Your task to perform on an android device: install app "Pinterest" Image 0: 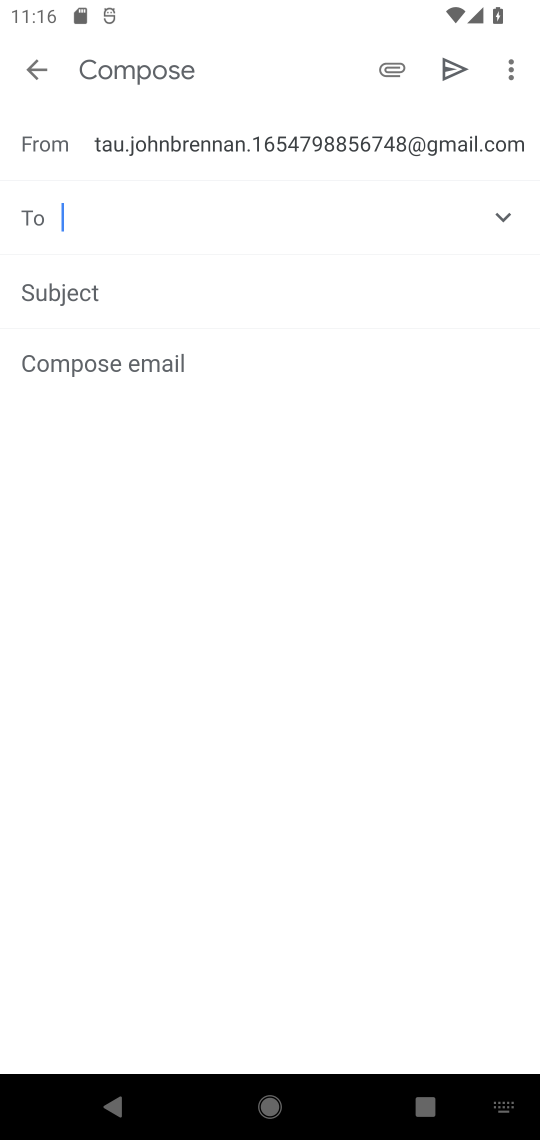
Step 0: press home button
Your task to perform on an android device: install app "Pinterest" Image 1: 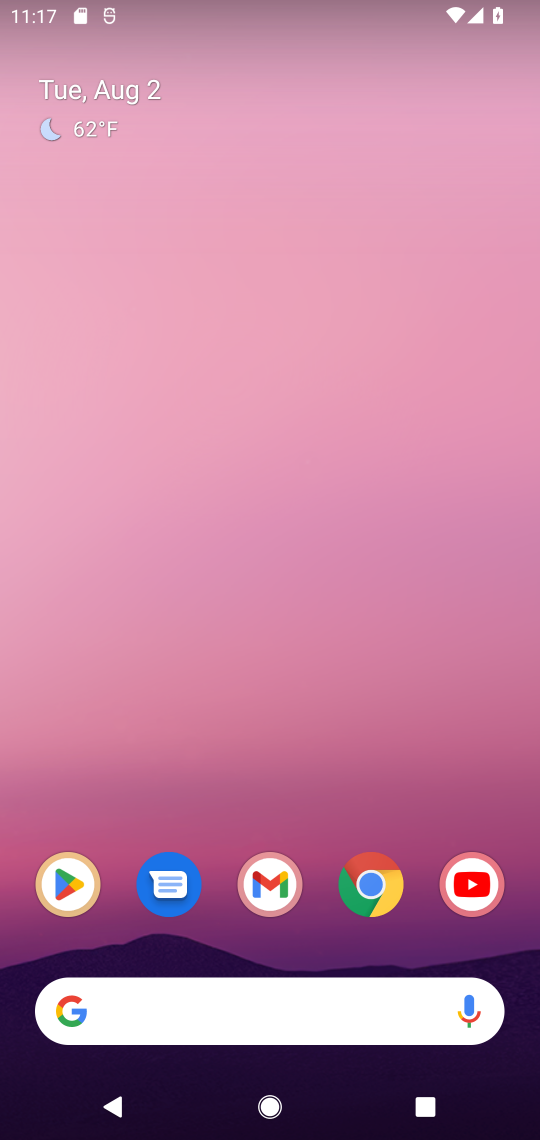
Step 1: click (60, 895)
Your task to perform on an android device: install app "Pinterest" Image 2: 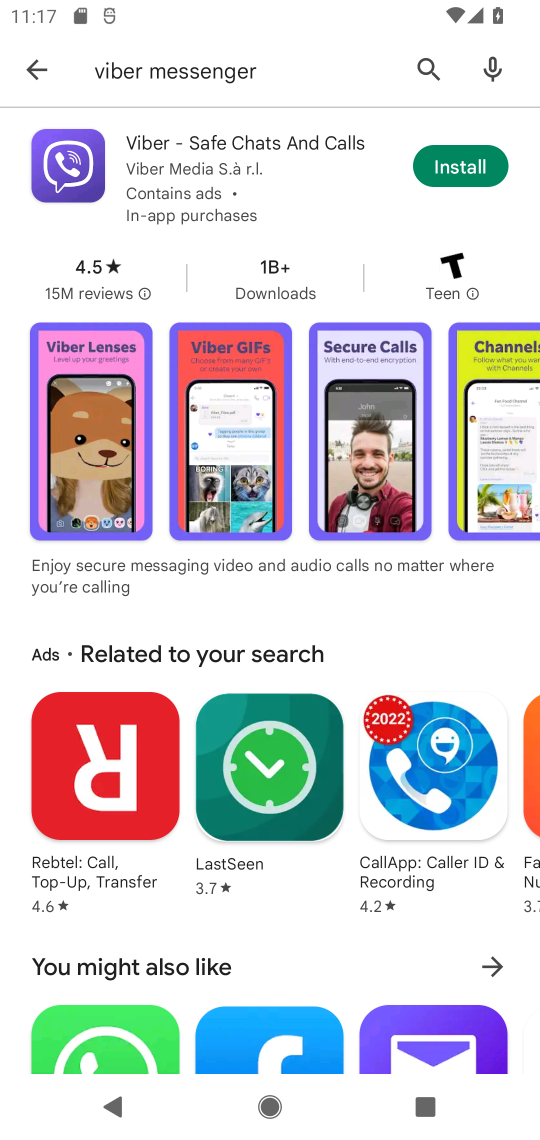
Step 2: click (217, 81)
Your task to perform on an android device: install app "Pinterest" Image 3: 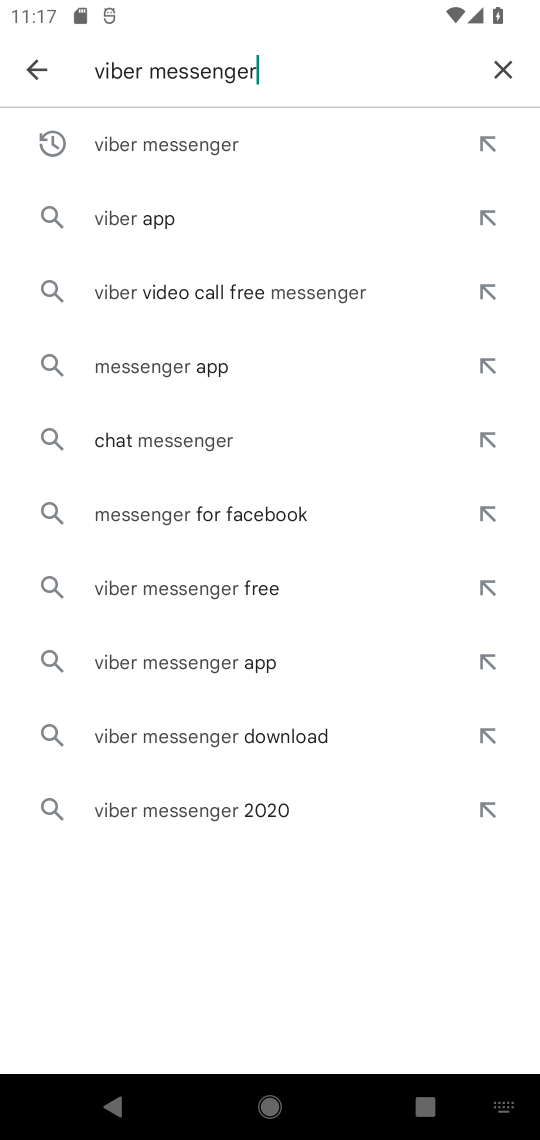
Step 3: click (496, 63)
Your task to perform on an android device: install app "Pinterest" Image 4: 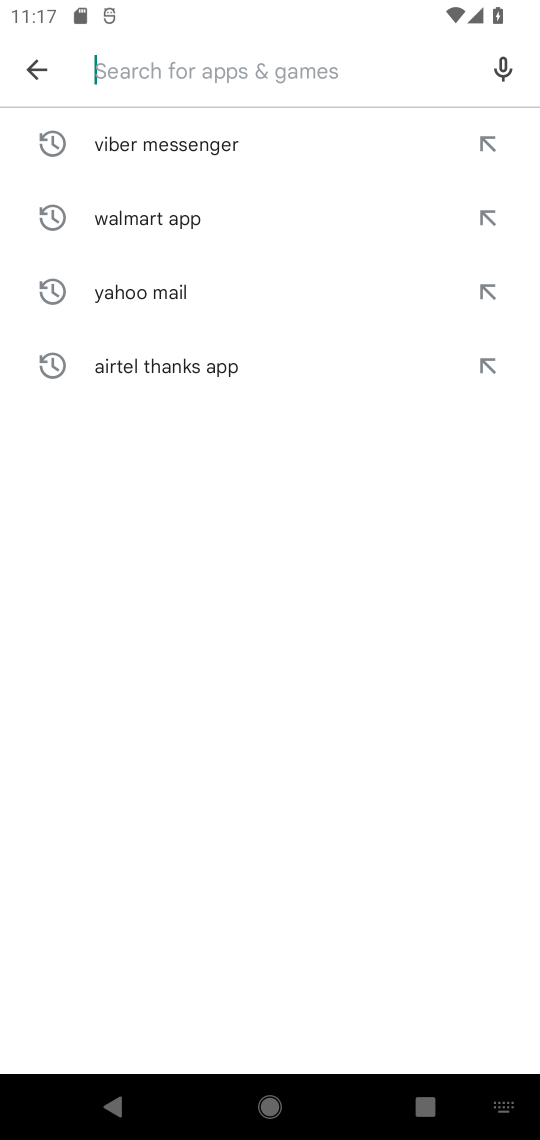
Step 4: type "Pinterest"
Your task to perform on an android device: install app "Pinterest" Image 5: 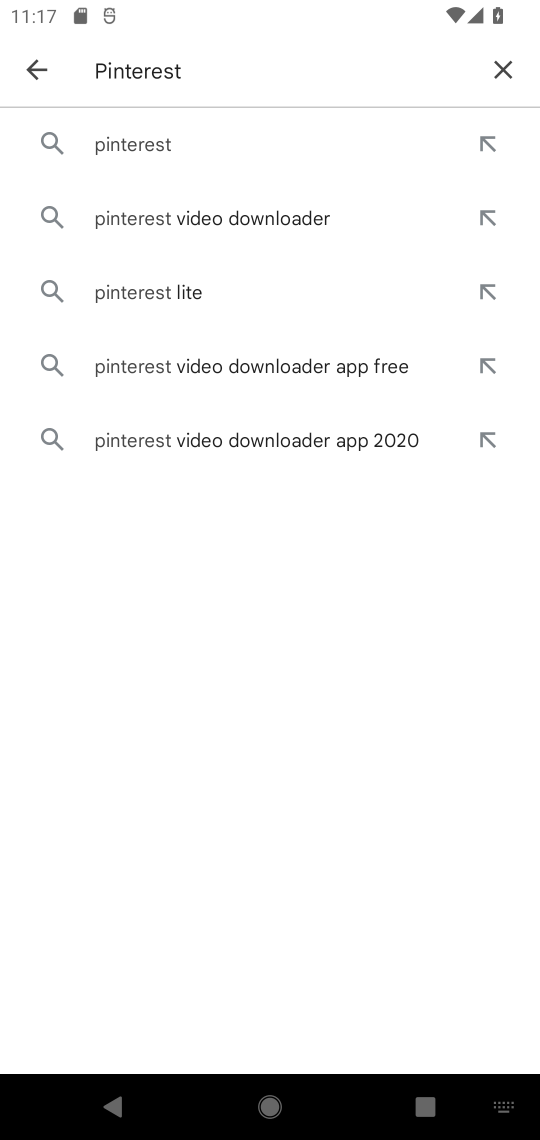
Step 5: click (148, 155)
Your task to perform on an android device: install app "Pinterest" Image 6: 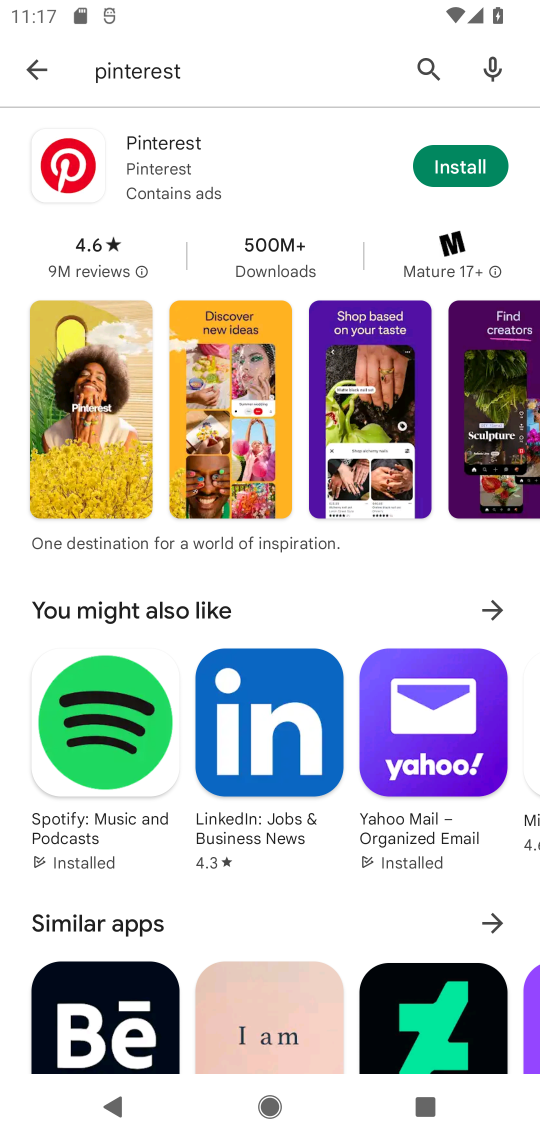
Step 6: click (459, 175)
Your task to perform on an android device: install app "Pinterest" Image 7: 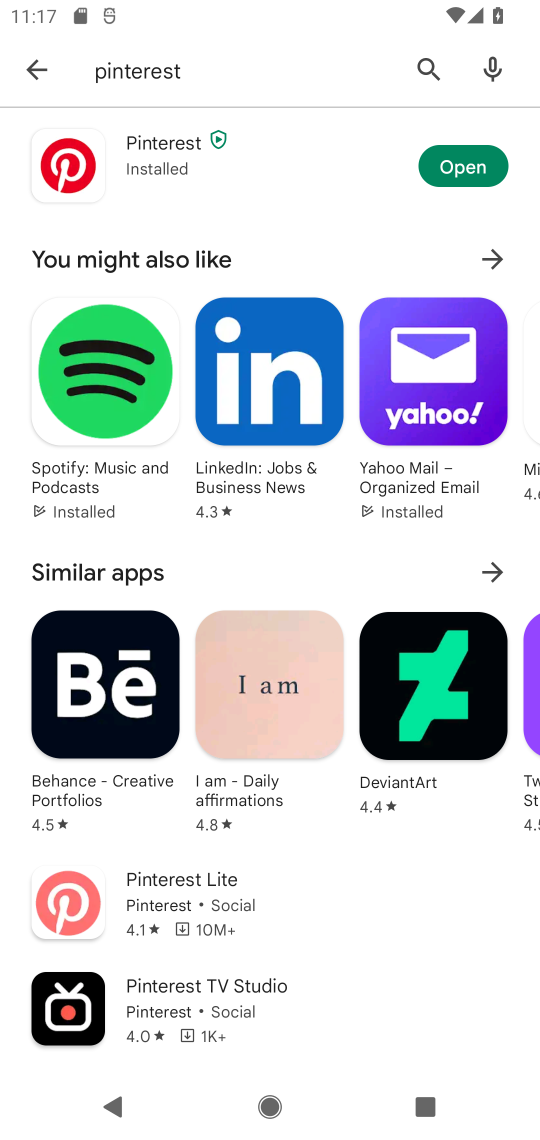
Step 7: task complete